Your task to perform on an android device: What's on my calendar today? Image 0: 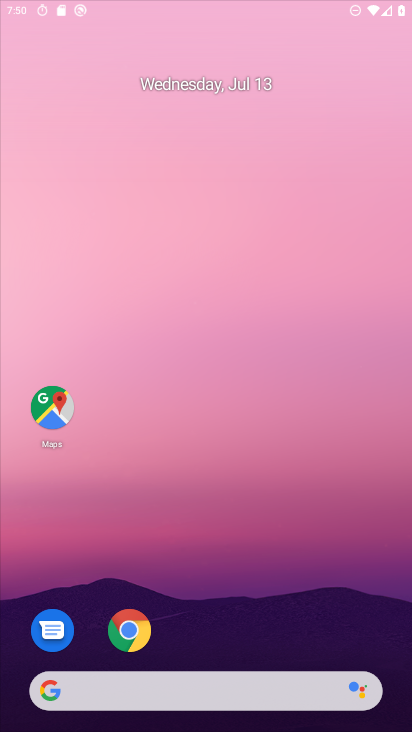
Step 0: drag from (263, 296) to (212, 48)
Your task to perform on an android device: What's on my calendar today? Image 1: 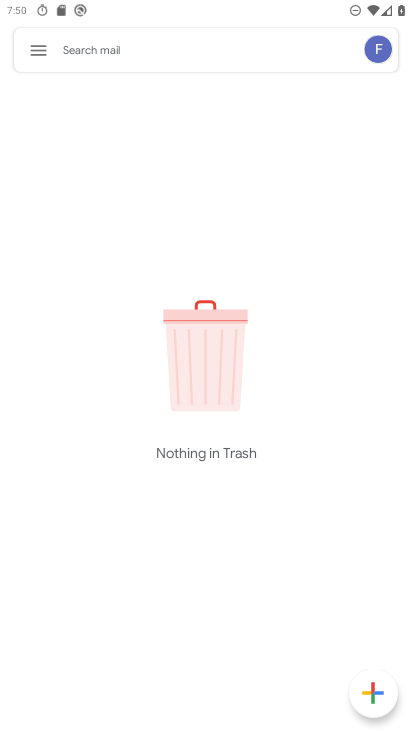
Step 1: press home button
Your task to perform on an android device: What's on my calendar today? Image 2: 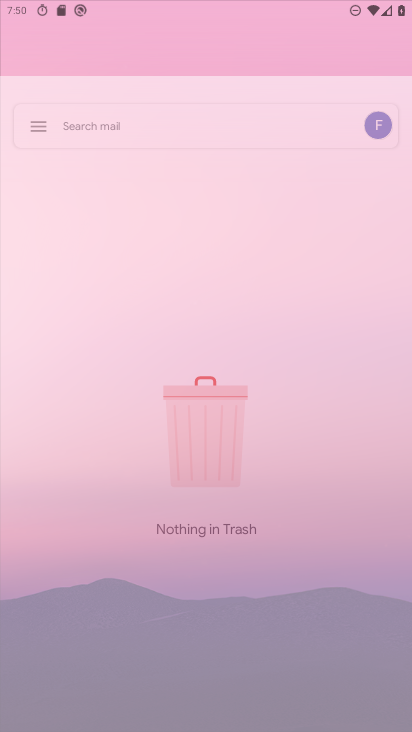
Step 2: drag from (338, 621) to (261, 12)
Your task to perform on an android device: What's on my calendar today? Image 3: 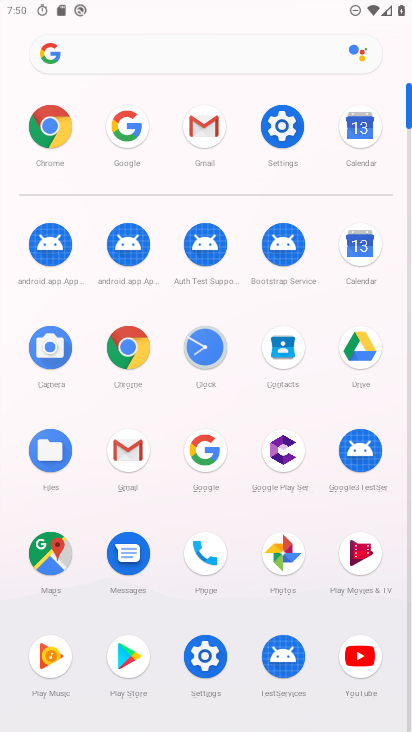
Step 3: click (369, 239)
Your task to perform on an android device: What's on my calendar today? Image 4: 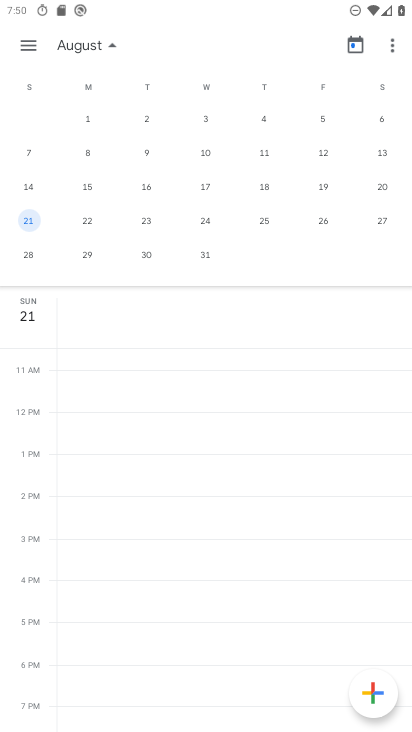
Step 4: drag from (50, 99) to (342, 162)
Your task to perform on an android device: What's on my calendar today? Image 5: 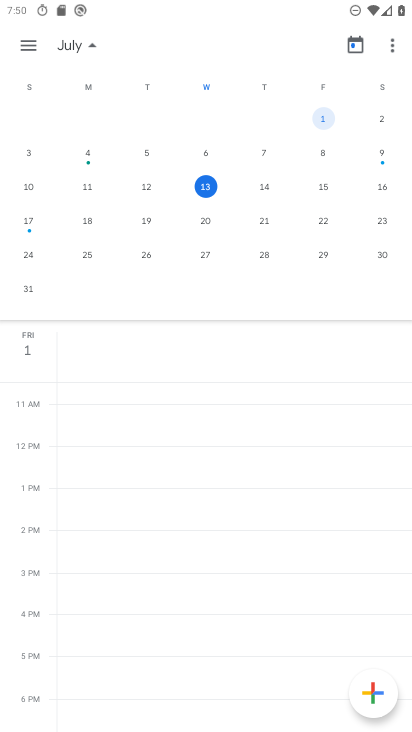
Step 5: click (263, 189)
Your task to perform on an android device: What's on my calendar today? Image 6: 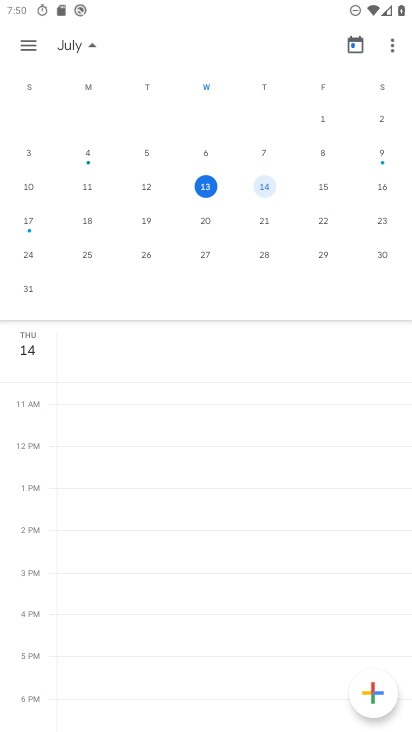
Step 6: click (109, 375)
Your task to perform on an android device: What's on my calendar today? Image 7: 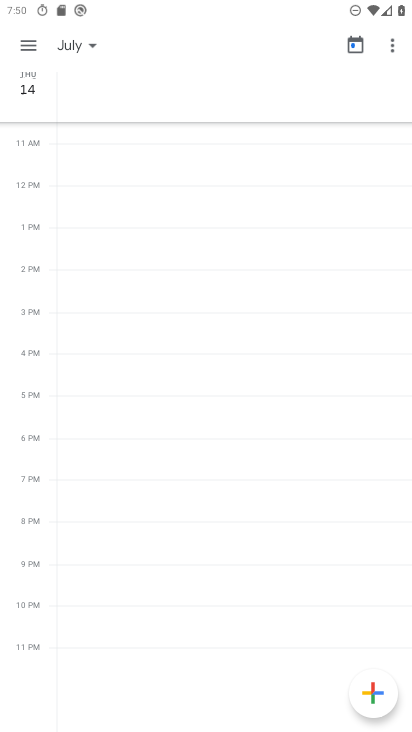
Step 7: task complete